Your task to perform on an android device: turn off location history Image 0: 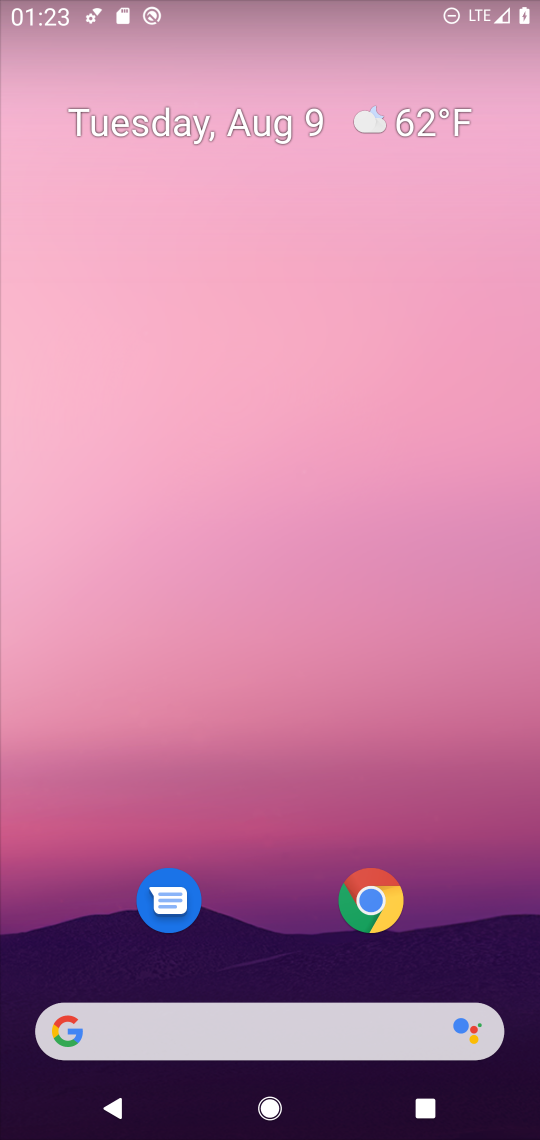
Step 0: press home button
Your task to perform on an android device: turn off location history Image 1: 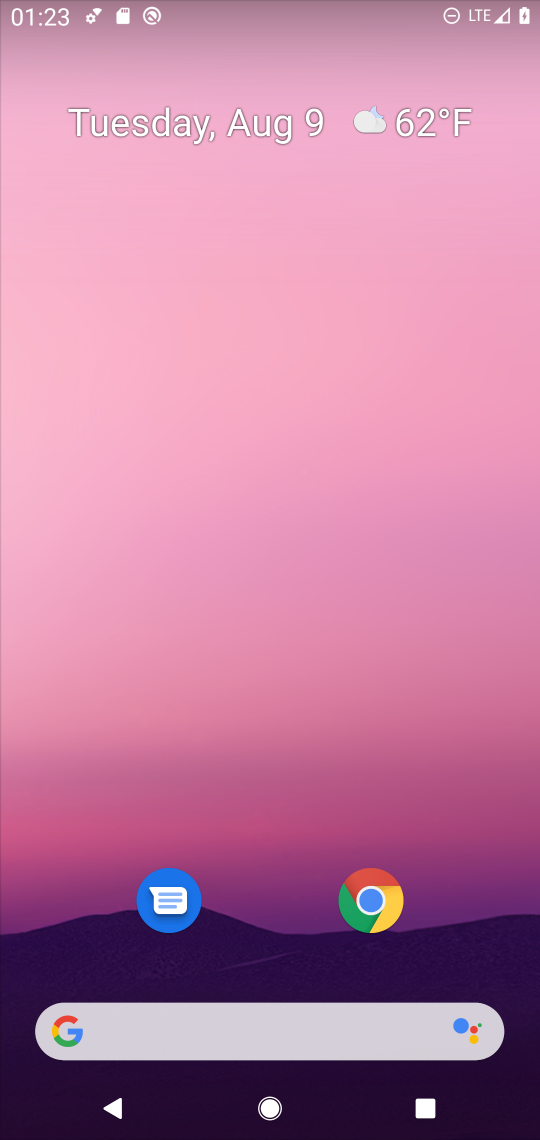
Step 1: drag from (261, 949) to (341, 183)
Your task to perform on an android device: turn off location history Image 2: 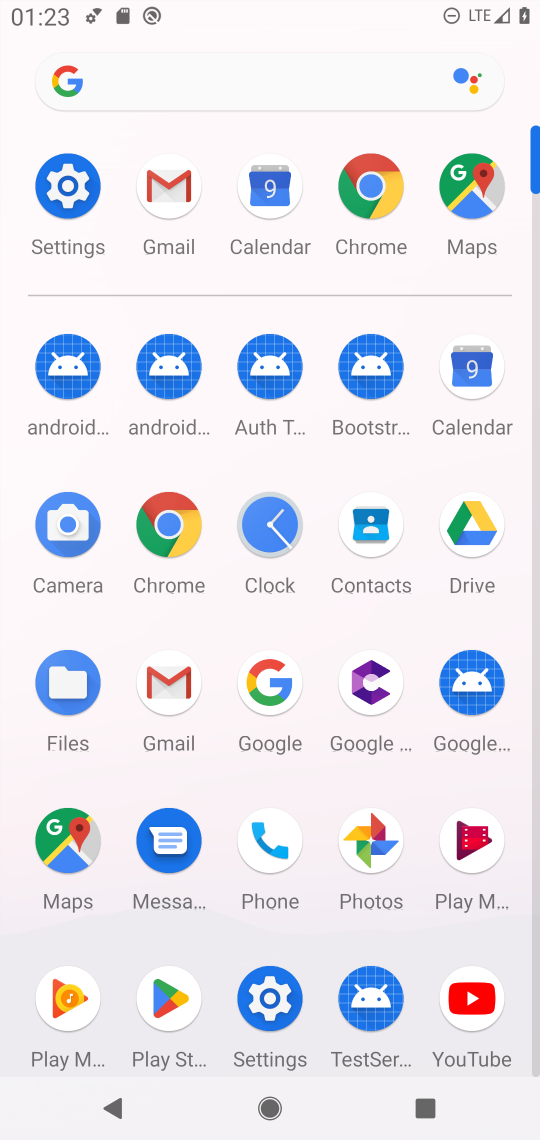
Step 2: click (256, 1010)
Your task to perform on an android device: turn off location history Image 3: 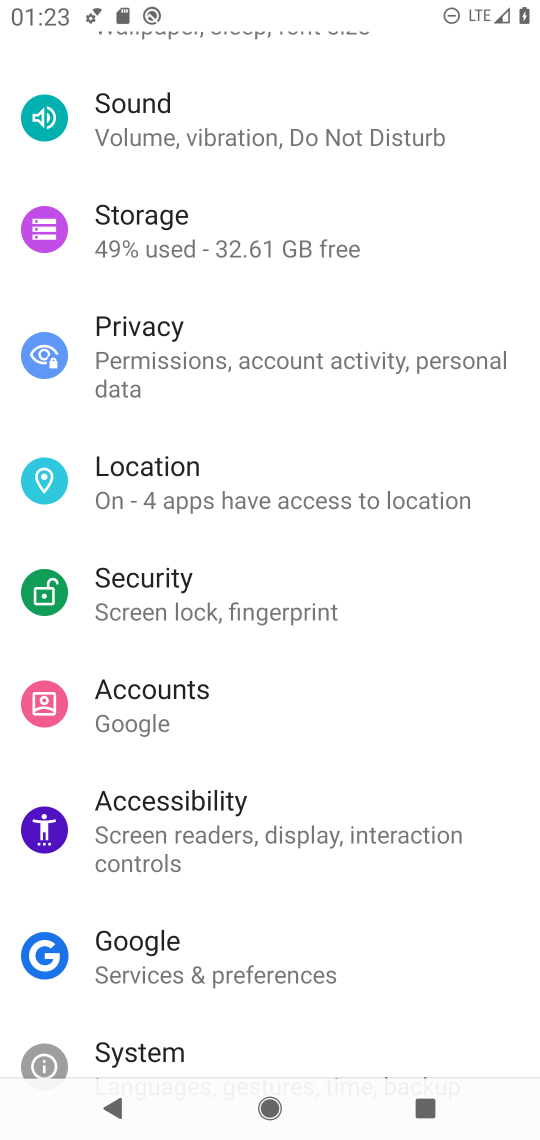
Step 3: drag from (393, 955) to (414, 595)
Your task to perform on an android device: turn off location history Image 4: 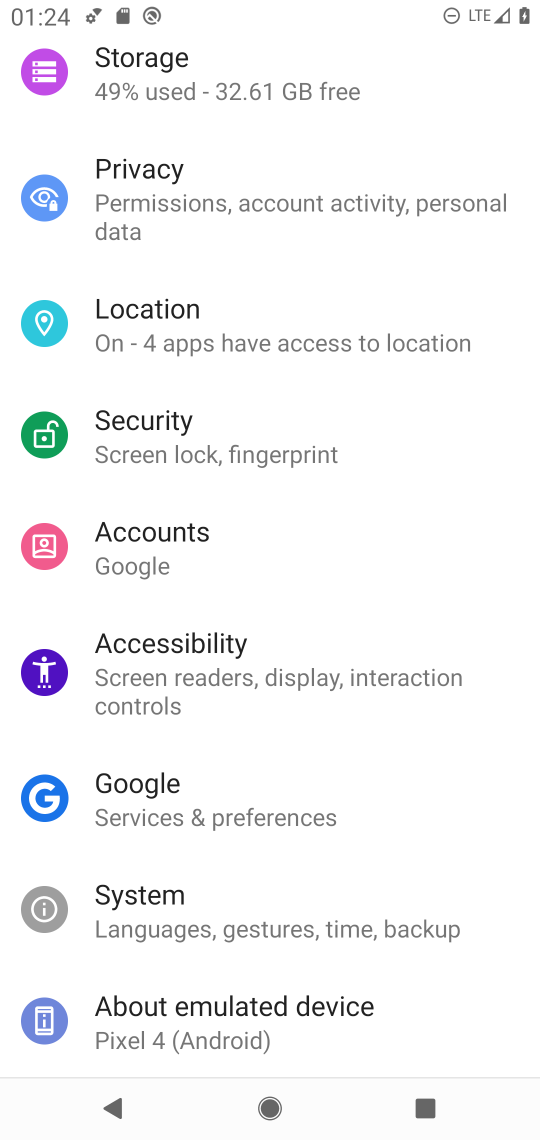
Step 4: drag from (466, 420) to (430, 734)
Your task to perform on an android device: turn off location history Image 5: 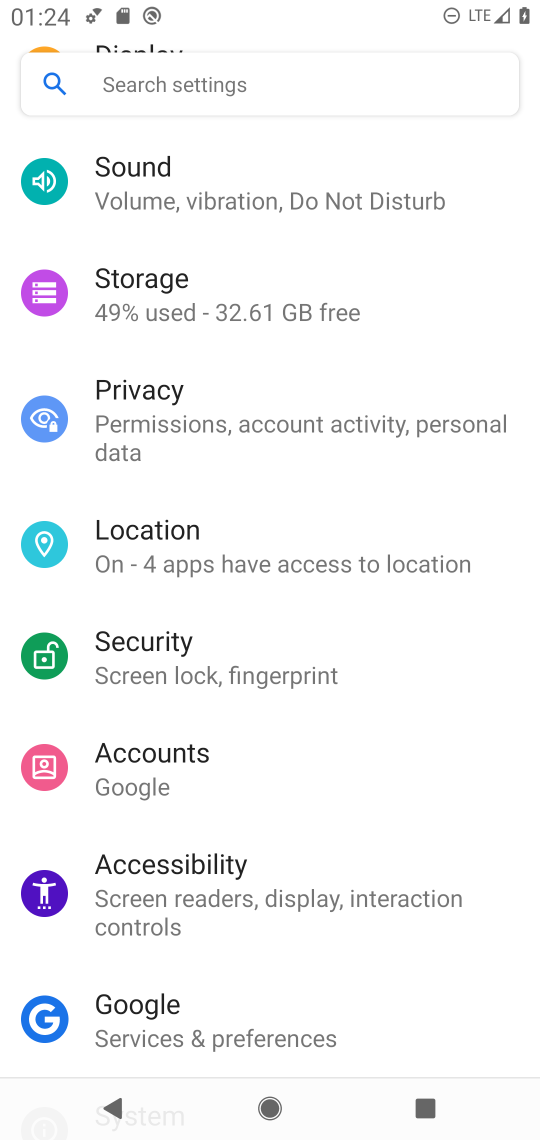
Step 5: drag from (429, 379) to (381, 701)
Your task to perform on an android device: turn off location history Image 6: 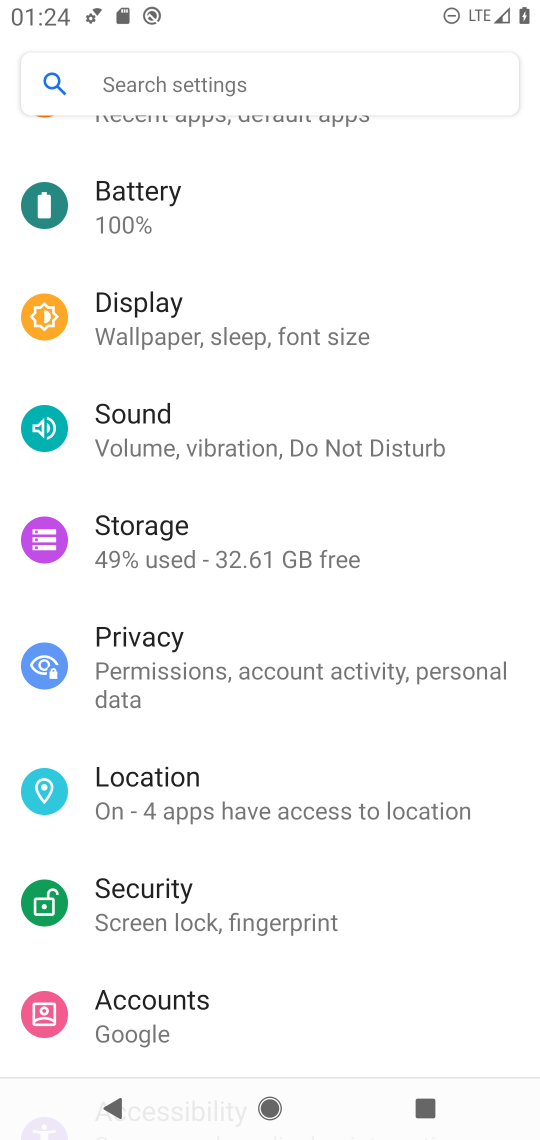
Step 6: click (235, 822)
Your task to perform on an android device: turn off location history Image 7: 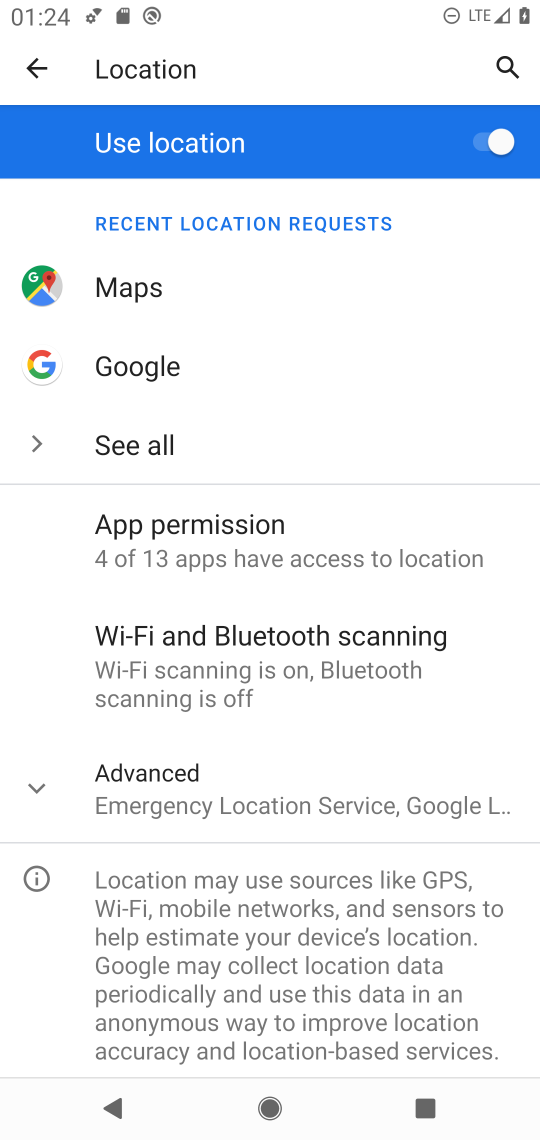
Step 7: click (506, 144)
Your task to perform on an android device: turn off location history Image 8: 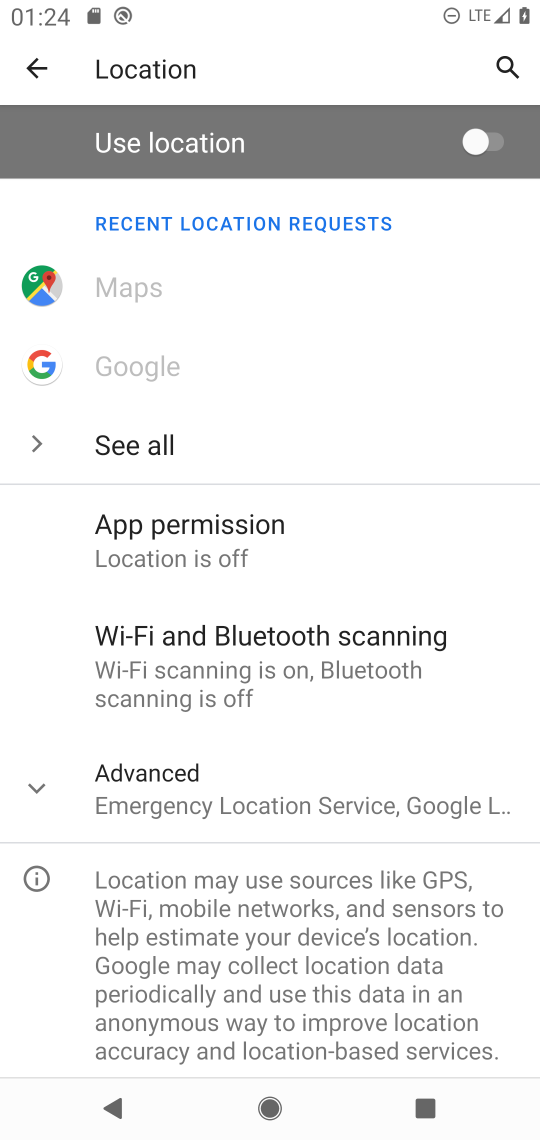
Step 8: task complete